Your task to perform on an android device: Show me popular games on the Play Store Image 0: 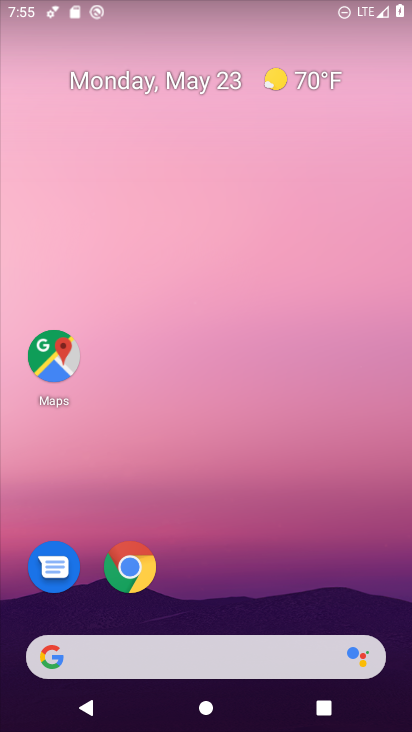
Step 0: drag from (182, 618) to (281, 161)
Your task to perform on an android device: Show me popular games on the Play Store Image 1: 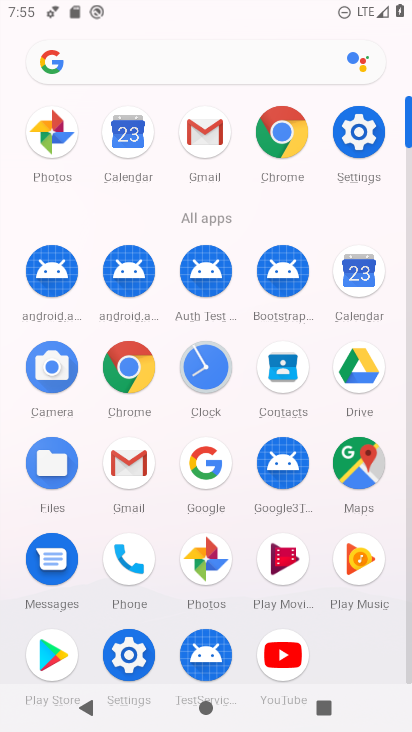
Step 1: click (31, 657)
Your task to perform on an android device: Show me popular games on the Play Store Image 2: 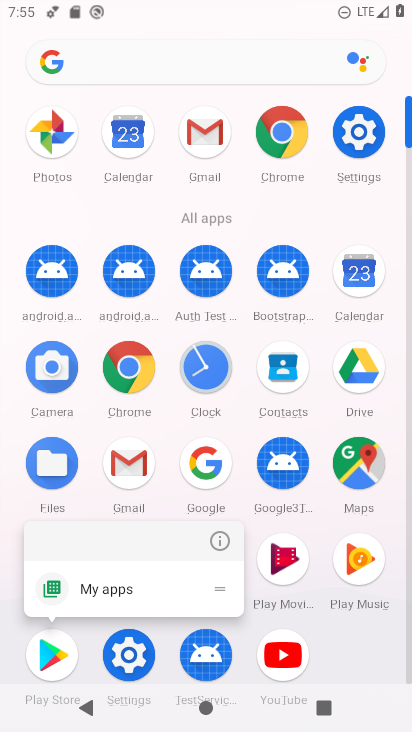
Step 2: click (223, 539)
Your task to perform on an android device: Show me popular games on the Play Store Image 3: 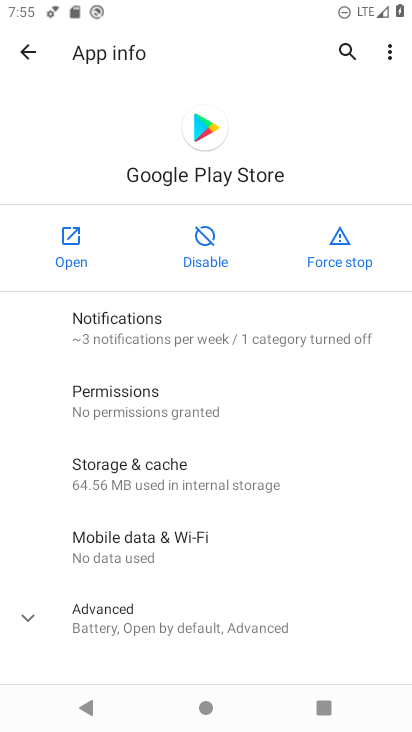
Step 3: click (65, 253)
Your task to perform on an android device: Show me popular games on the Play Store Image 4: 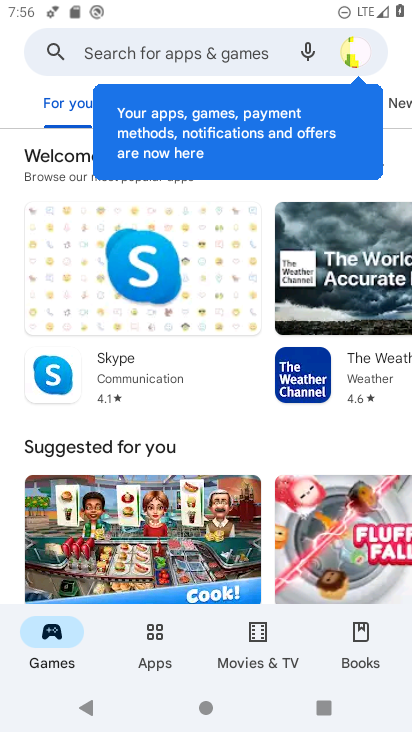
Step 4: drag from (233, 534) to (309, 142)
Your task to perform on an android device: Show me popular games on the Play Store Image 5: 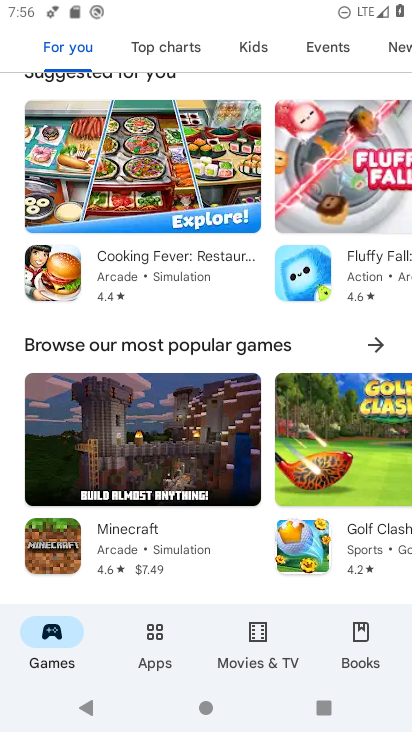
Step 5: click (368, 349)
Your task to perform on an android device: Show me popular games on the Play Store Image 6: 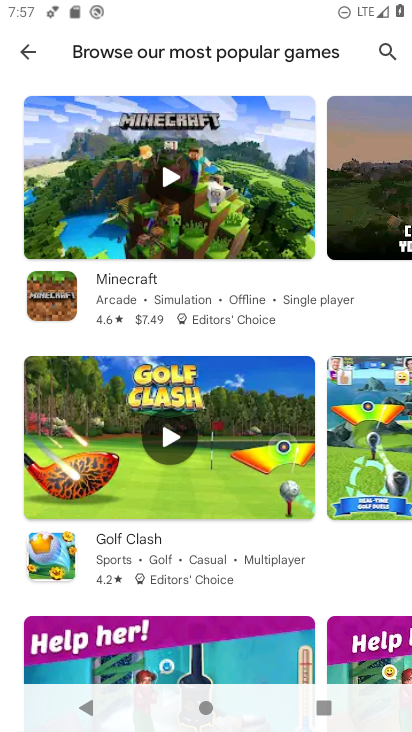
Step 6: task complete